Your task to perform on an android device: Go to notification settings Image 0: 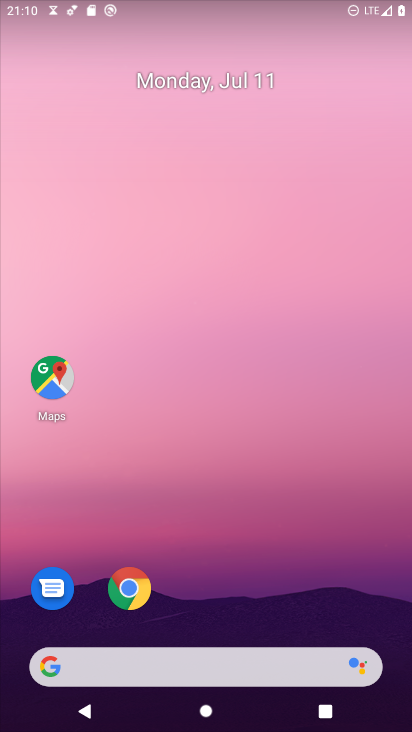
Step 0: press home button
Your task to perform on an android device: Go to notification settings Image 1: 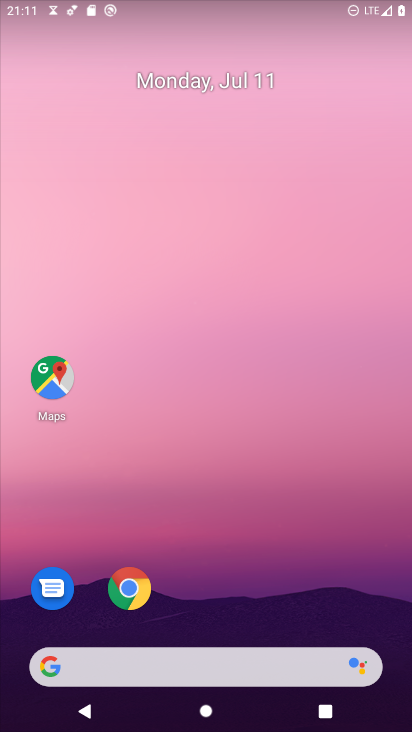
Step 1: drag from (278, 612) to (254, 171)
Your task to perform on an android device: Go to notification settings Image 2: 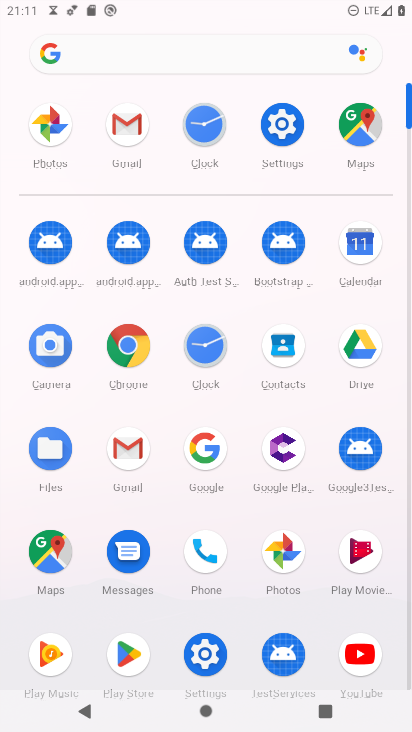
Step 2: click (298, 130)
Your task to perform on an android device: Go to notification settings Image 3: 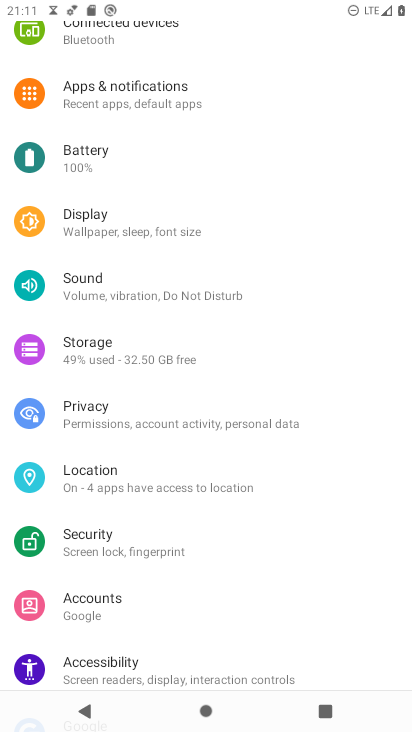
Step 3: click (103, 92)
Your task to perform on an android device: Go to notification settings Image 4: 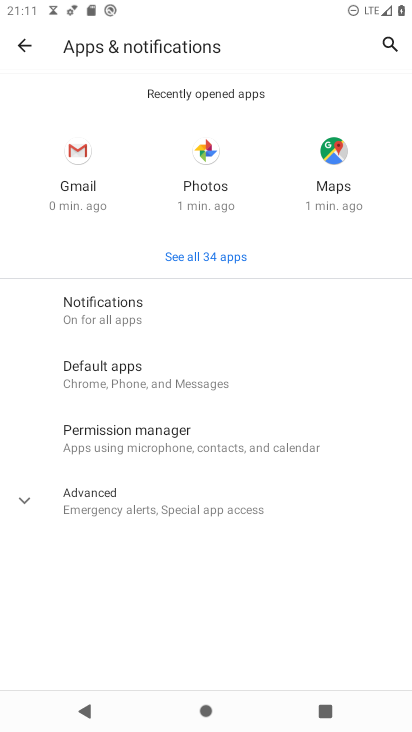
Step 4: click (100, 311)
Your task to perform on an android device: Go to notification settings Image 5: 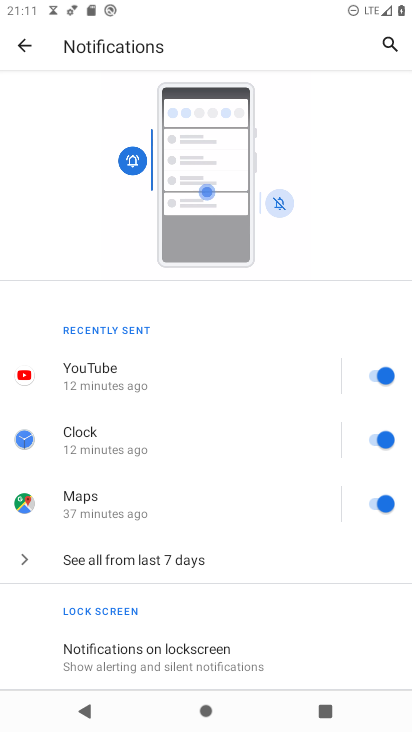
Step 5: task complete